Your task to perform on an android device: Open network settings Image 0: 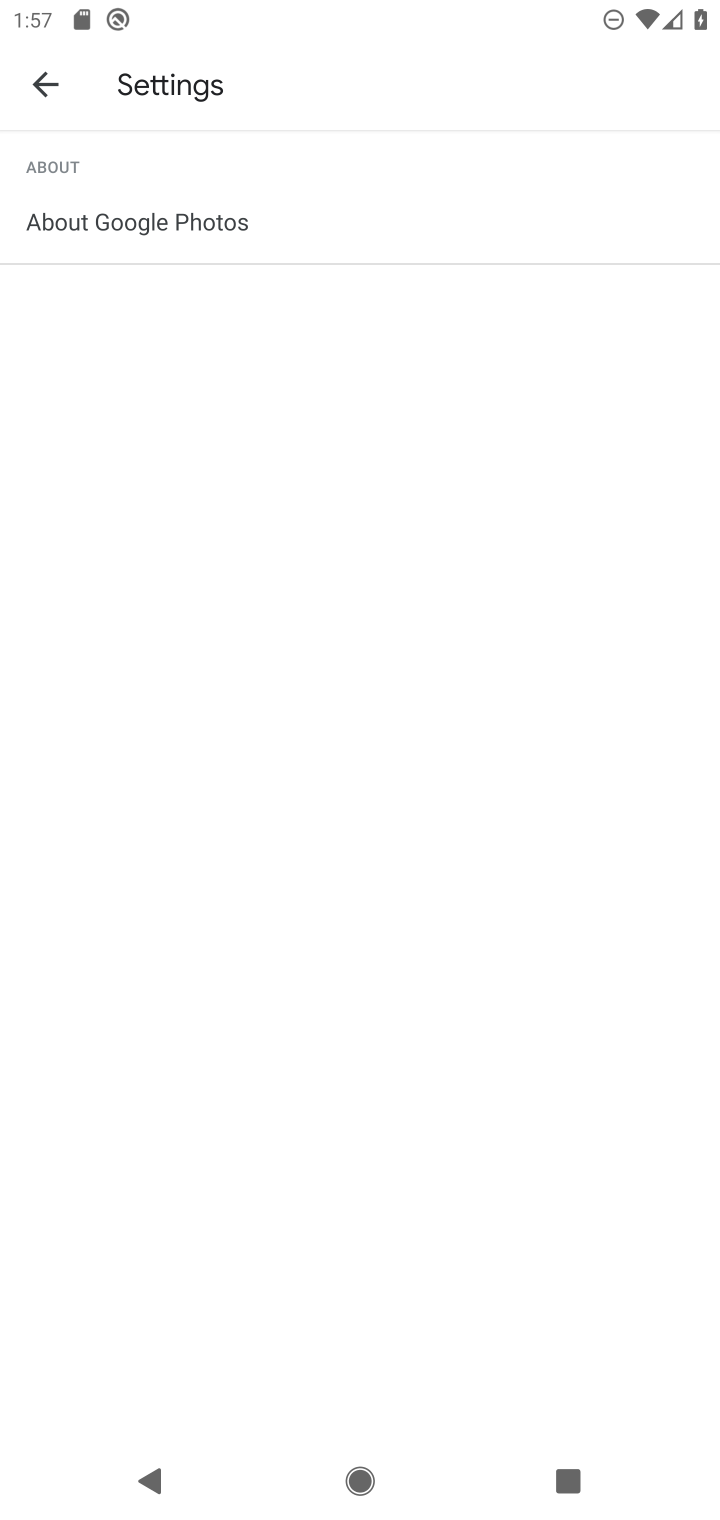
Step 0: press home button
Your task to perform on an android device: Open network settings Image 1: 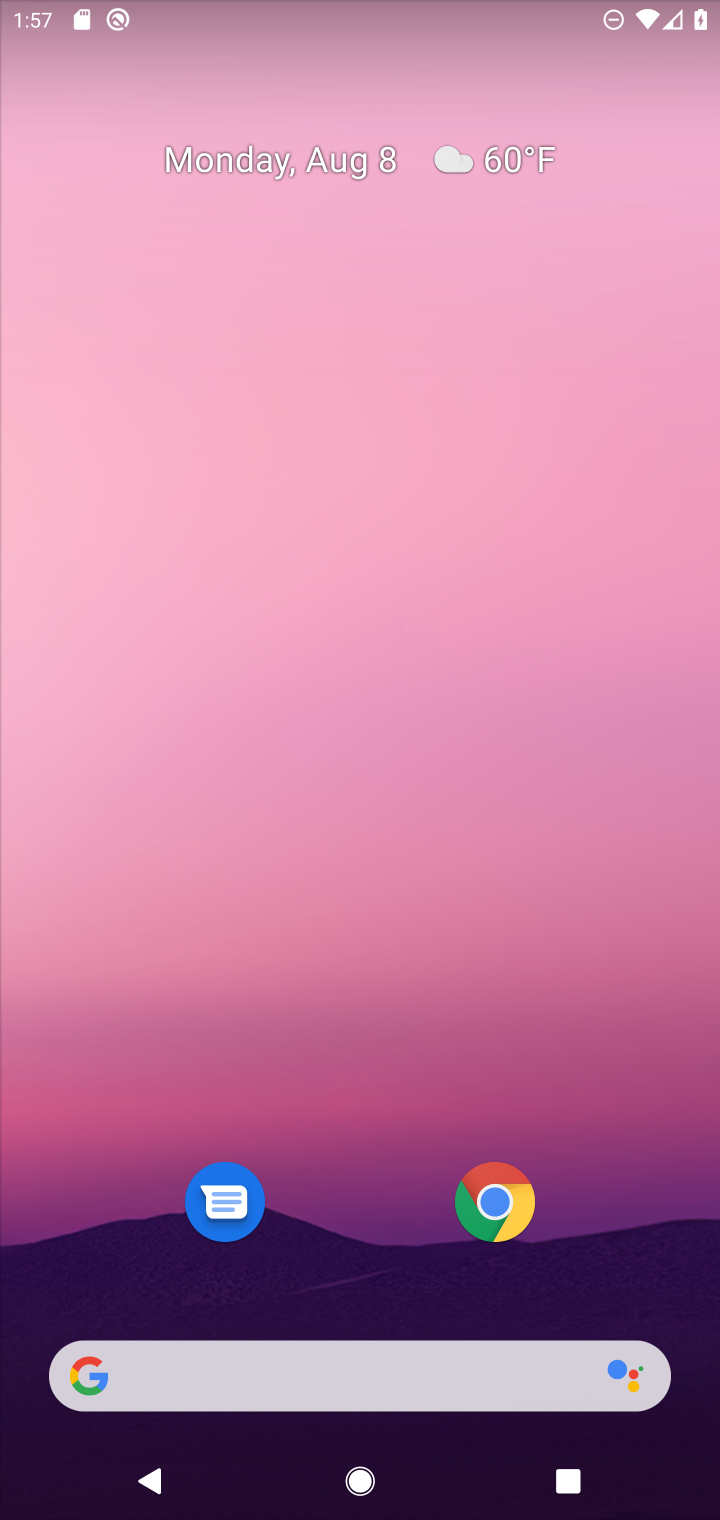
Step 1: drag from (349, 1188) to (409, 348)
Your task to perform on an android device: Open network settings Image 2: 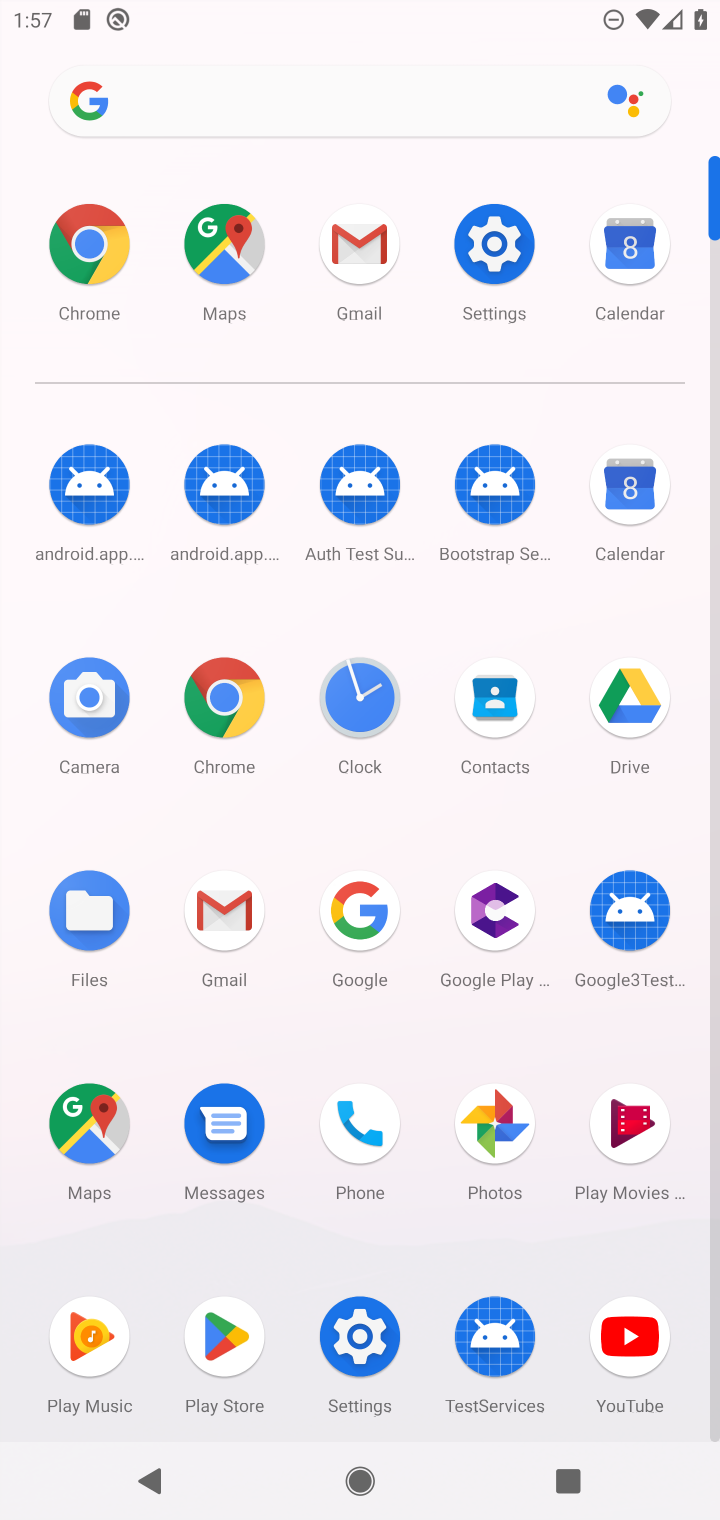
Step 2: click (509, 248)
Your task to perform on an android device: Open network settings Image 3: 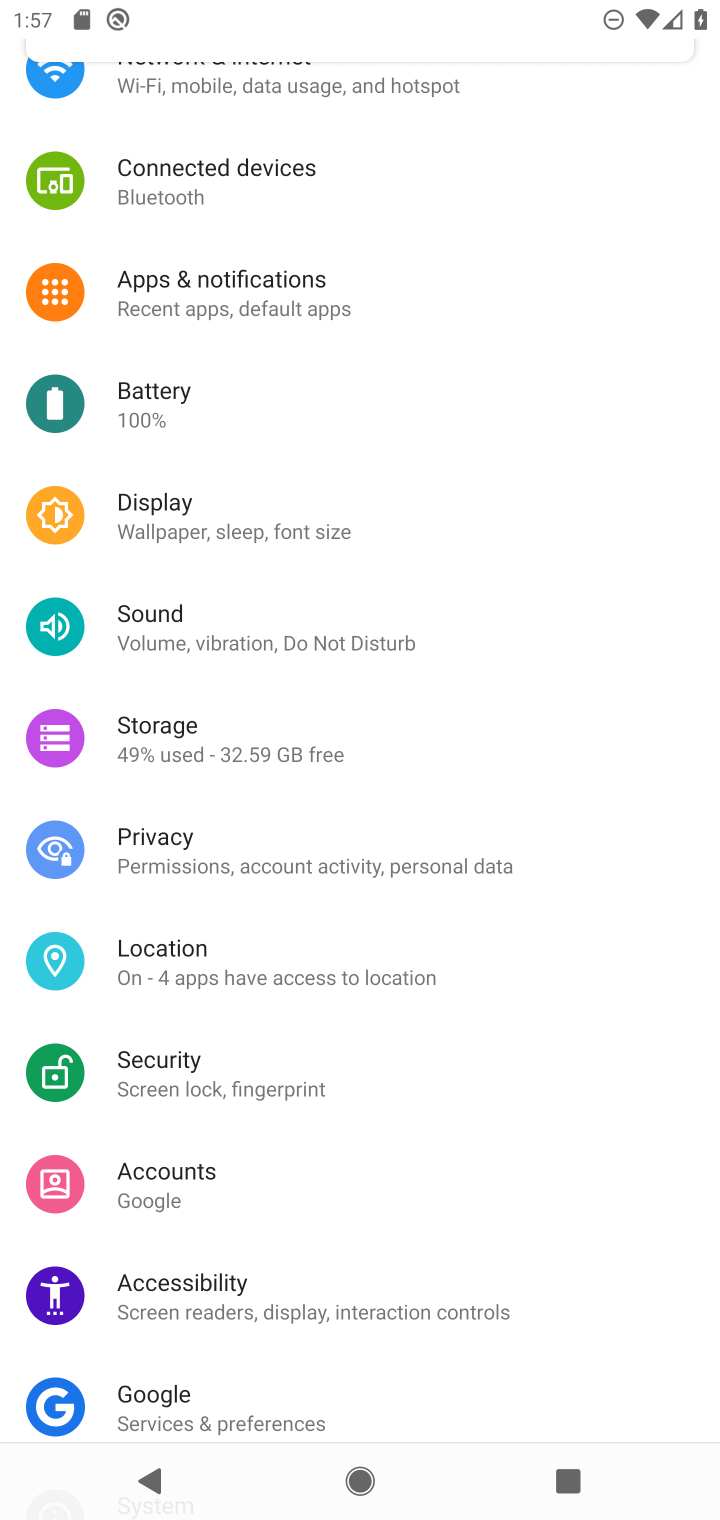
Step 3: drag from (600, 928) to (610, 649)
Your task to perform on an android device: Open network settings Image 4: 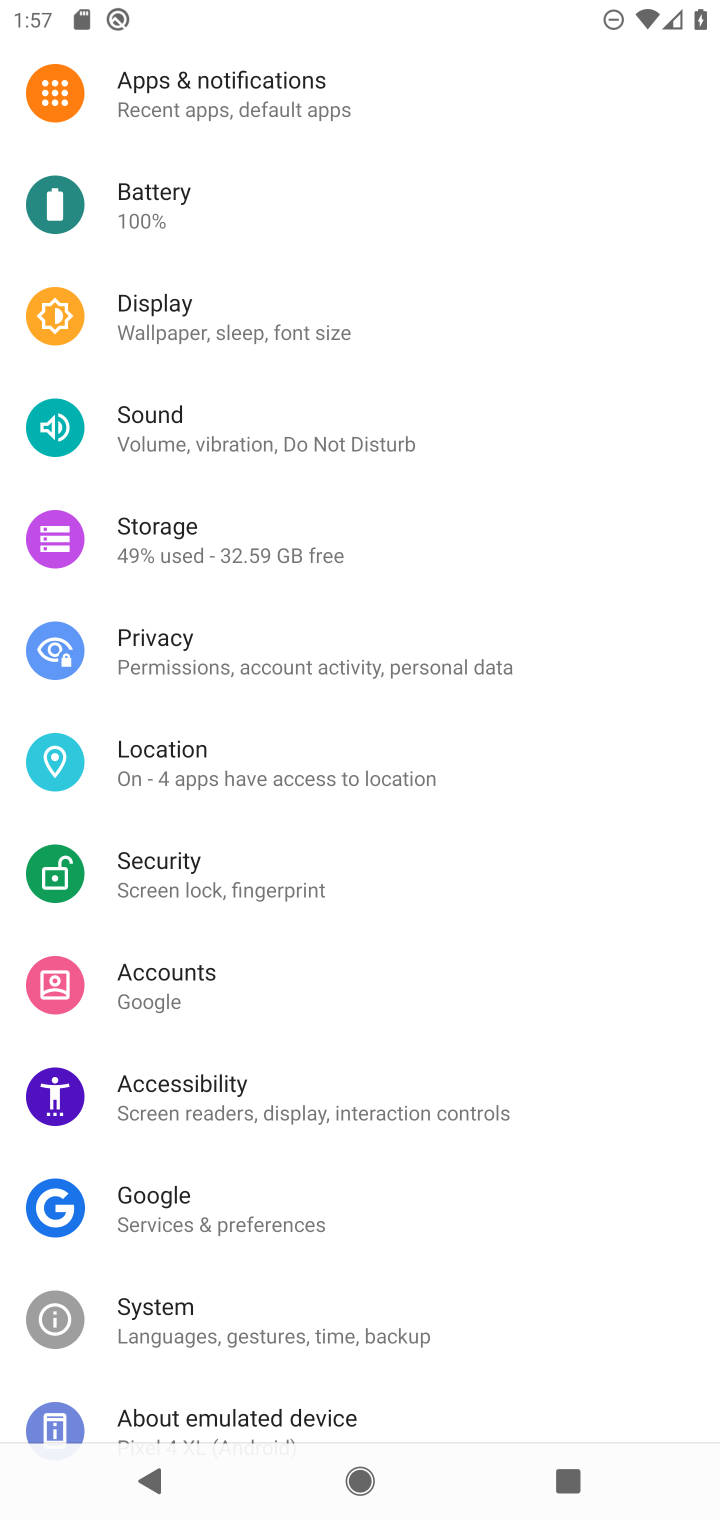
Step 4: drag from (553, 976) to (591, 737)
Your task to perform on an android device: Open network settings Image 5: 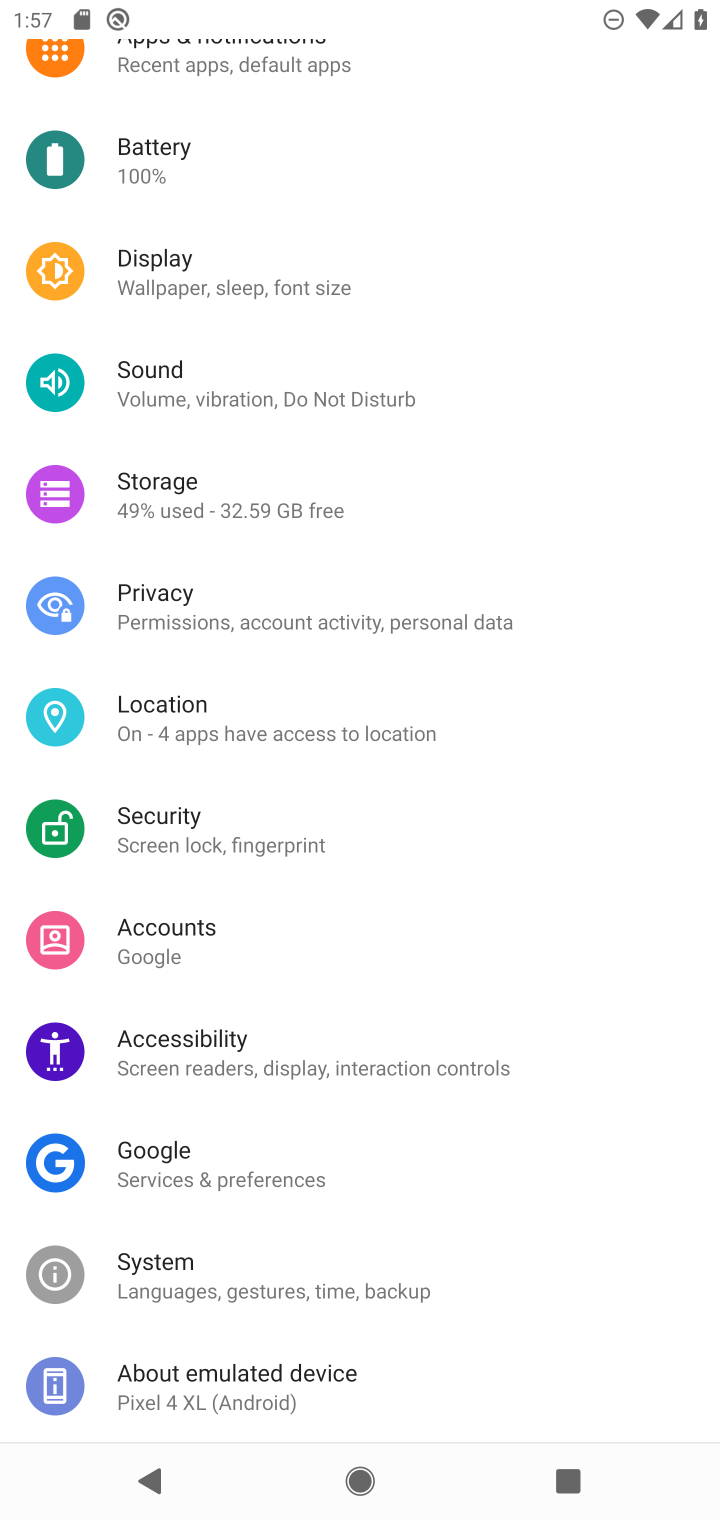
Step 5: drag from (588, 1025) to (595, 842)
Your task to perform on an android device: Open network settings Image 6: 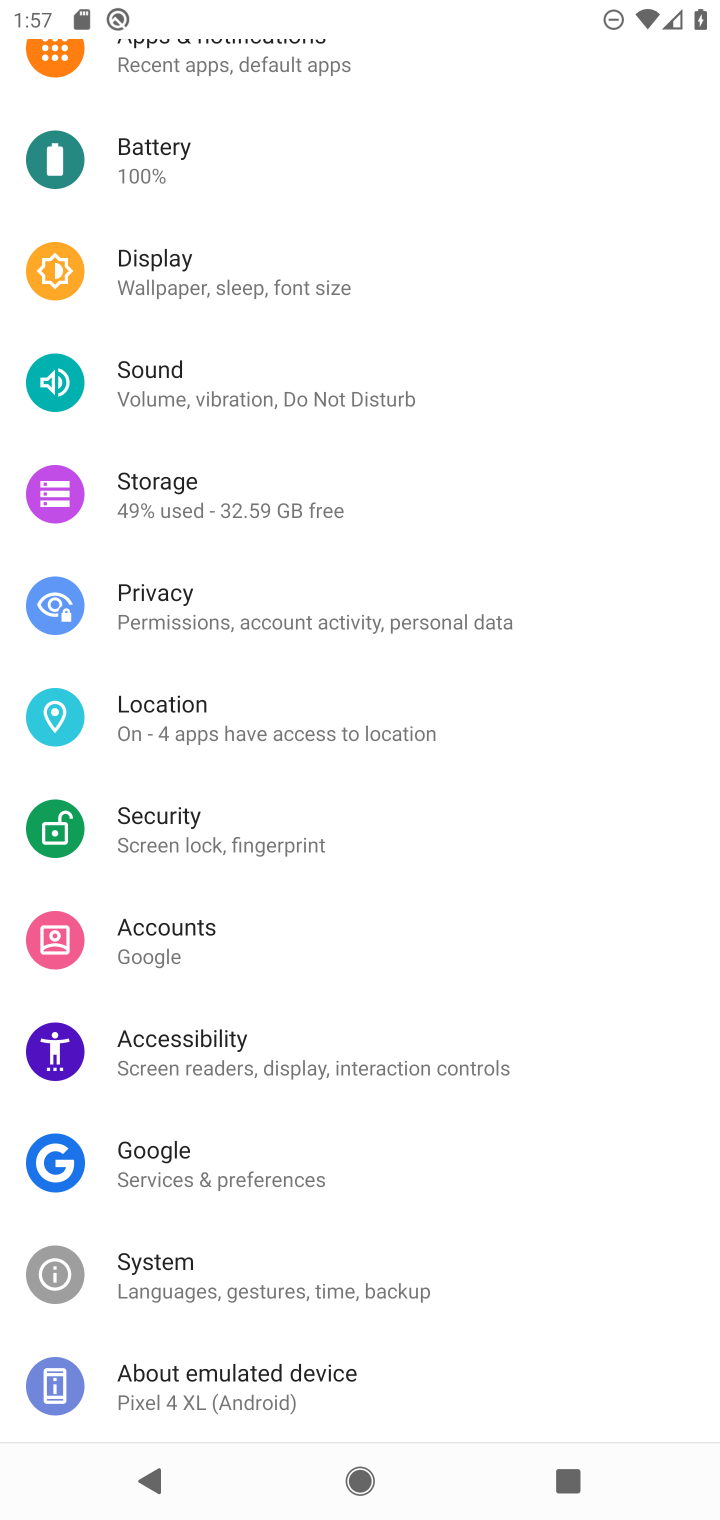
Step 6: drag from (600, 556) to (536, 876)
Your task to perform on an android device: Open network settings Image 7: 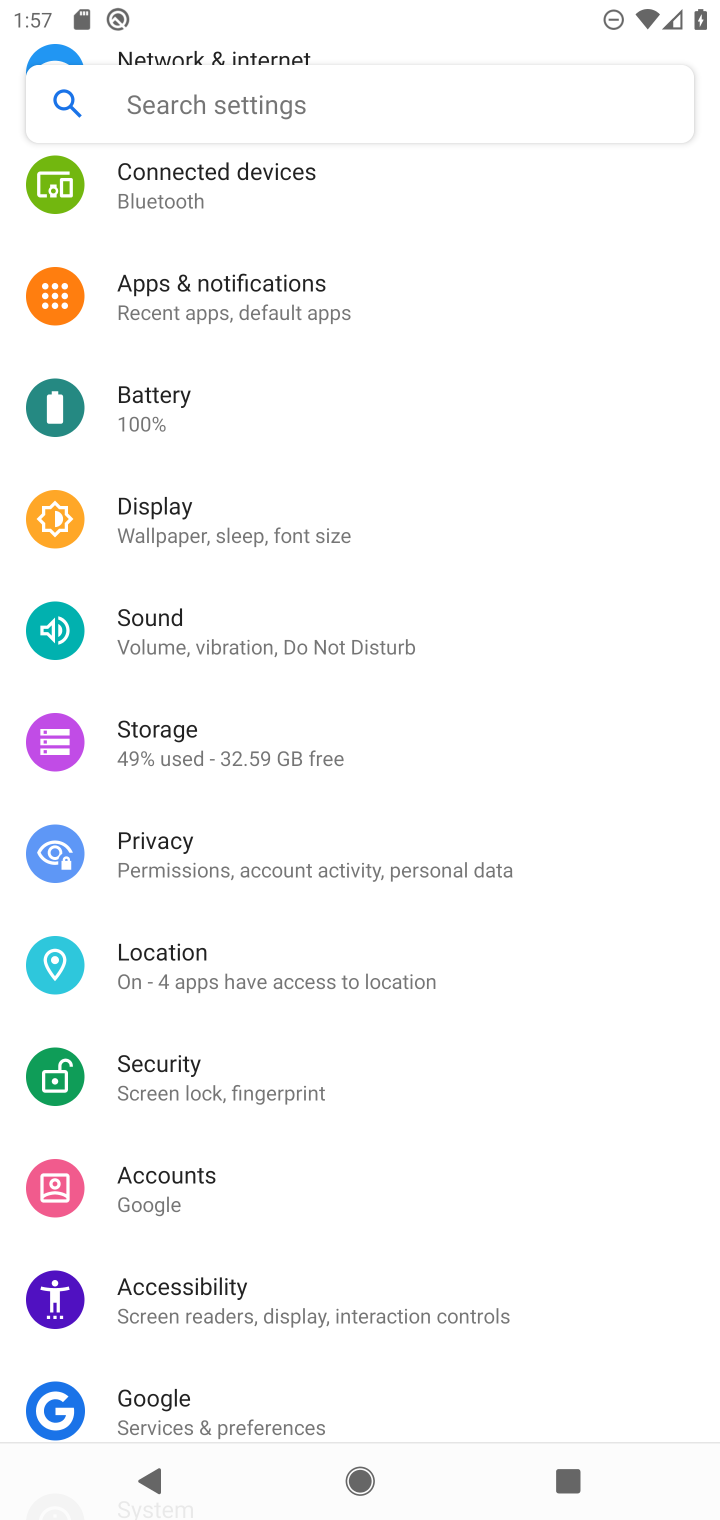
Step 7: drag from (581, 526) to (571, 850)
Your task to perform on an android device: Open network settings Image 8: 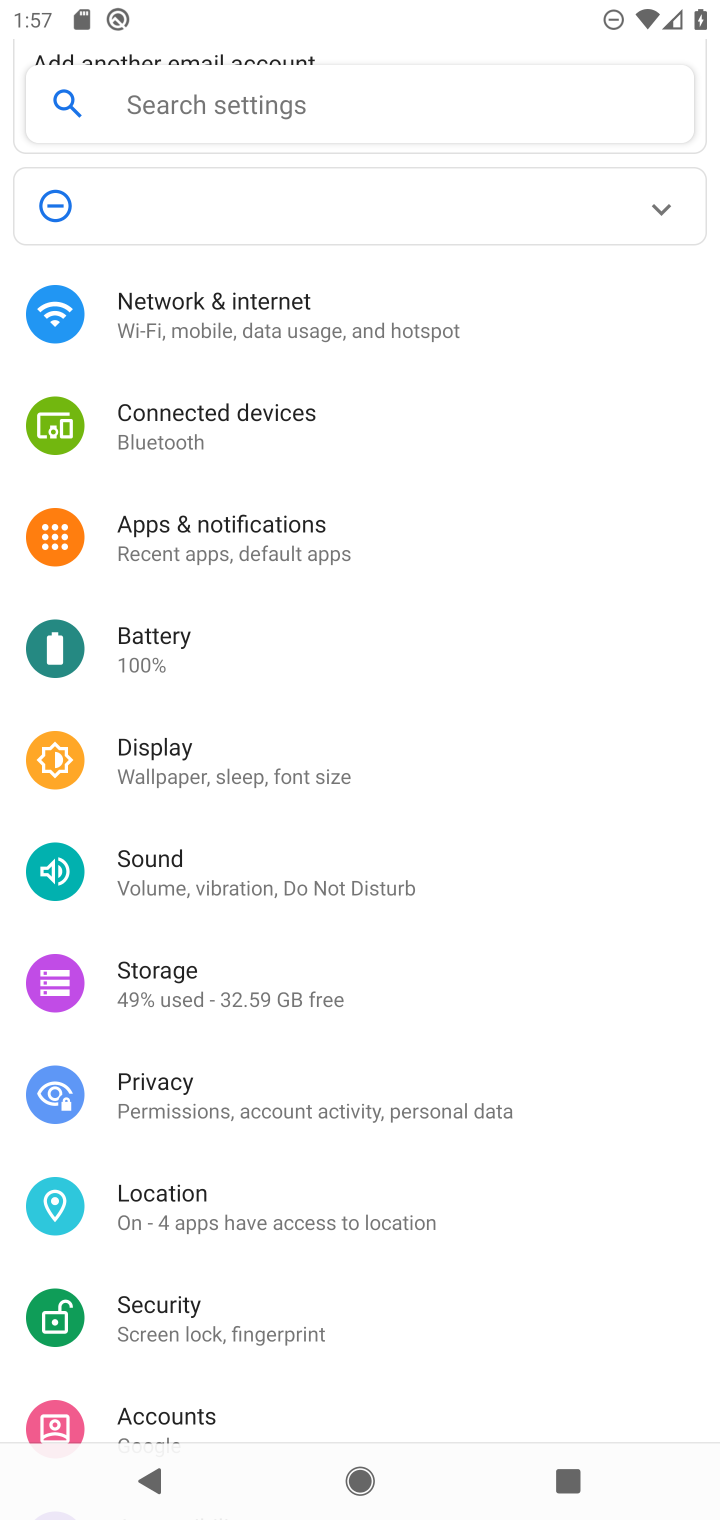
Step 8: drag from (572, 555) to (542, 789)
Your task to perform on an android device: Open network settings Image 9: 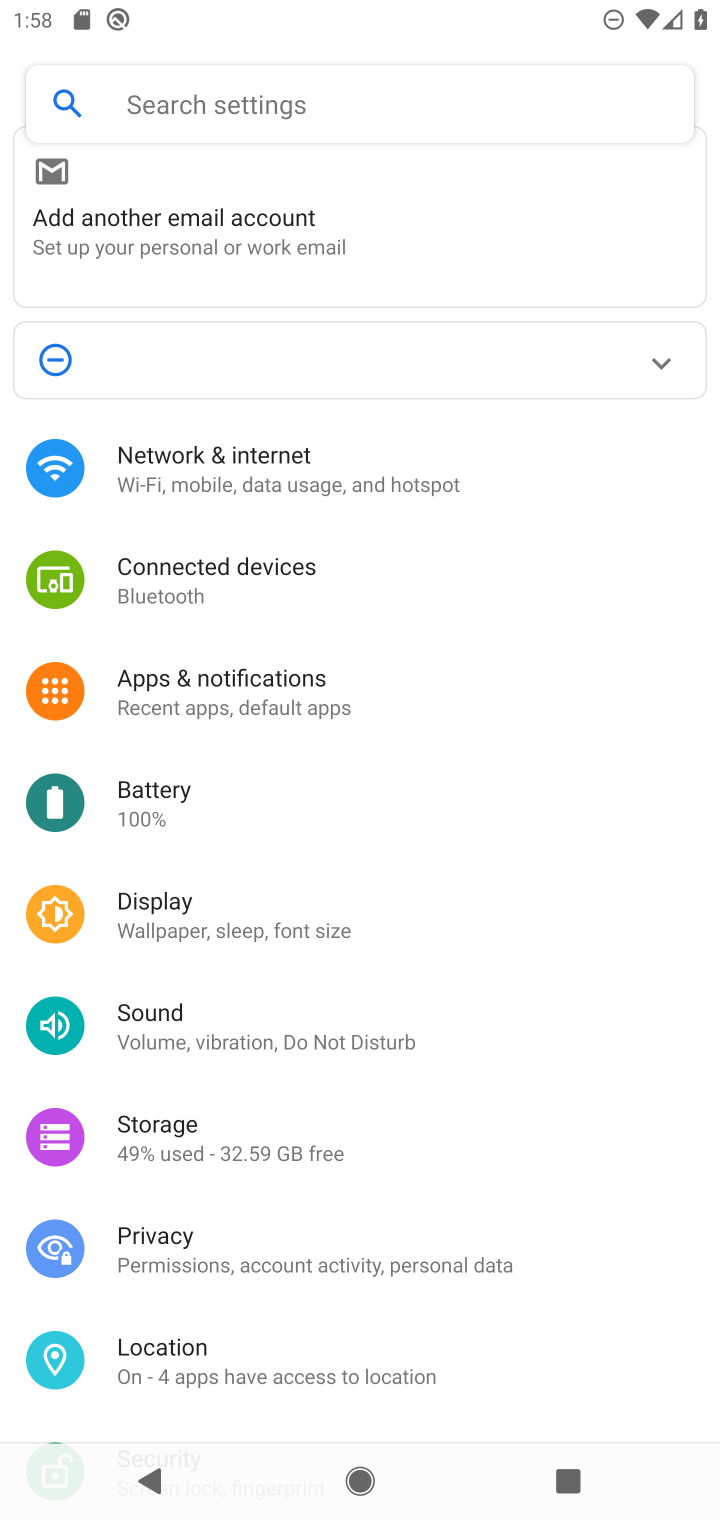
Step 9: click (321, 457)
Your task to perform on an android device: Open network settings Image 10: 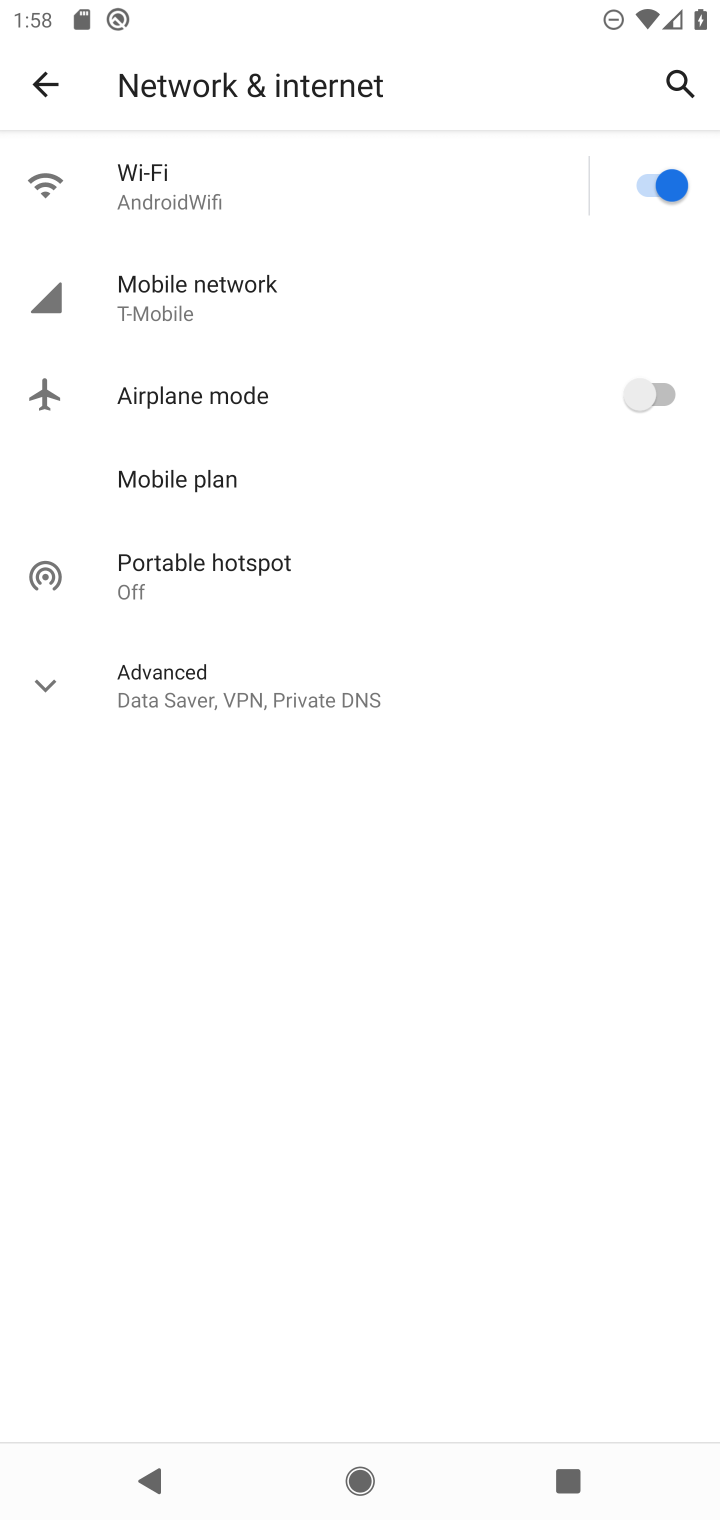
Step 10: task complete